Your task to perform on an android device: Toggle the flashlight Image 0: 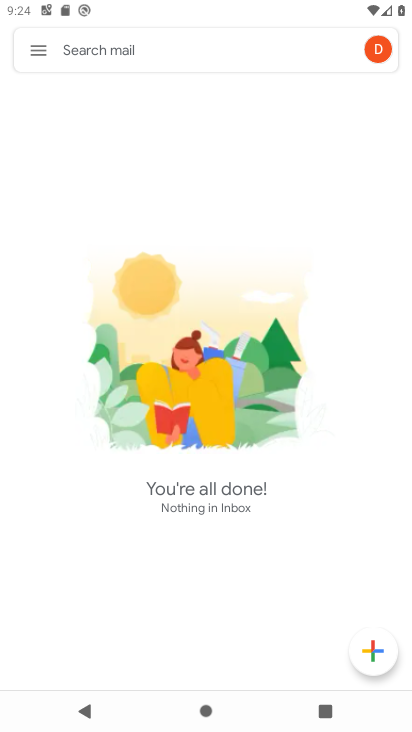
Step 0: press home button
Your task to perform on an android device: Toggle the flashlight Image 1: 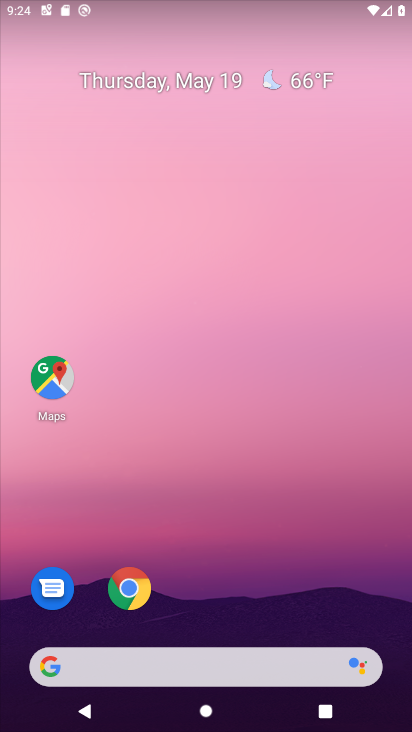
Step 1: drag from (248, 6) to (215, 428)
Your task to perform on an android device: Toggle the flashlight Image 2: 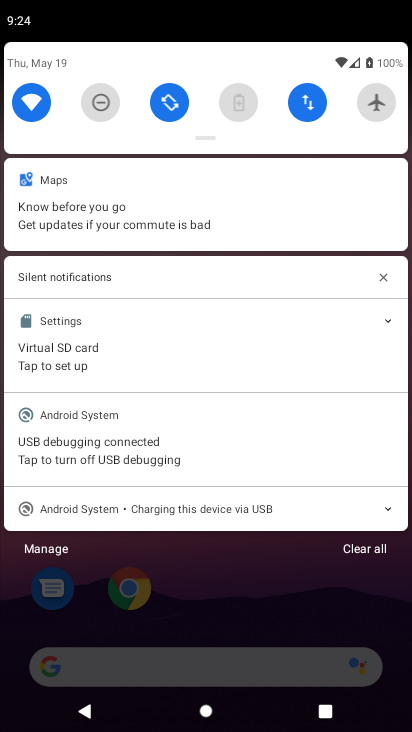
Step 2: drag from (272, 55) to (255, 393)
Your task to perform on an android device: Toggle the flashlight Image 3: 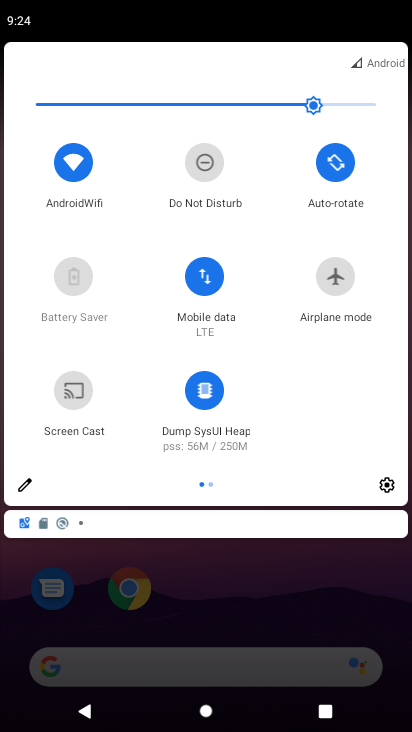
Step 3: click (34, 478)
Your task to perform on an android device: Toggle the flashlight Image 4: 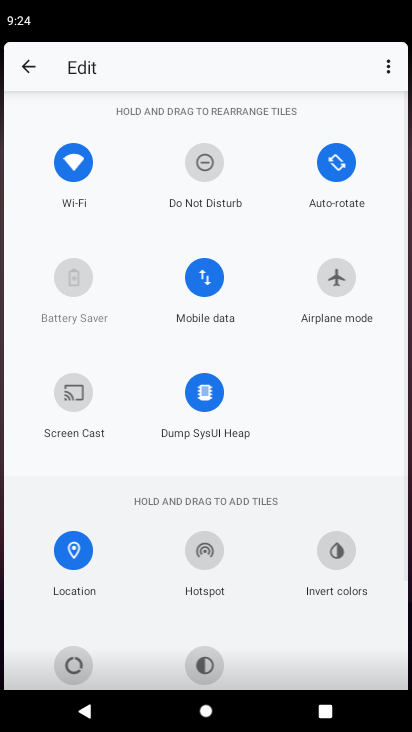
Step 4: task complete